Your task to perform on an android device: Show the shopping cart on walmart. Search for dell xps on walmart, select the first entry, add it to the cart, then select checkout. Image 0: 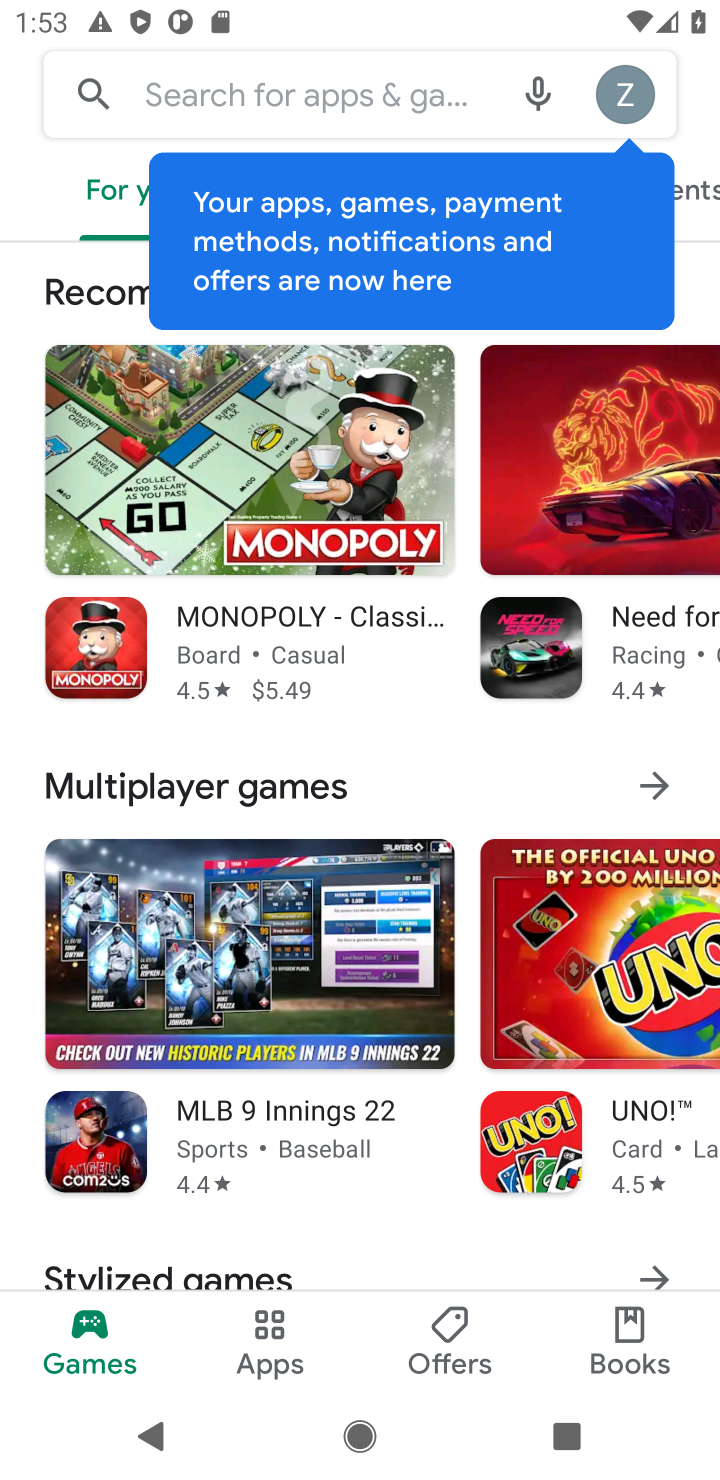
Step 0: press home button
Your task to perform on an android device: Show the shopping cart on walmart. Search for dell xps on walmart, select the first entry, add it to the cart, then select checkout. Image 1: 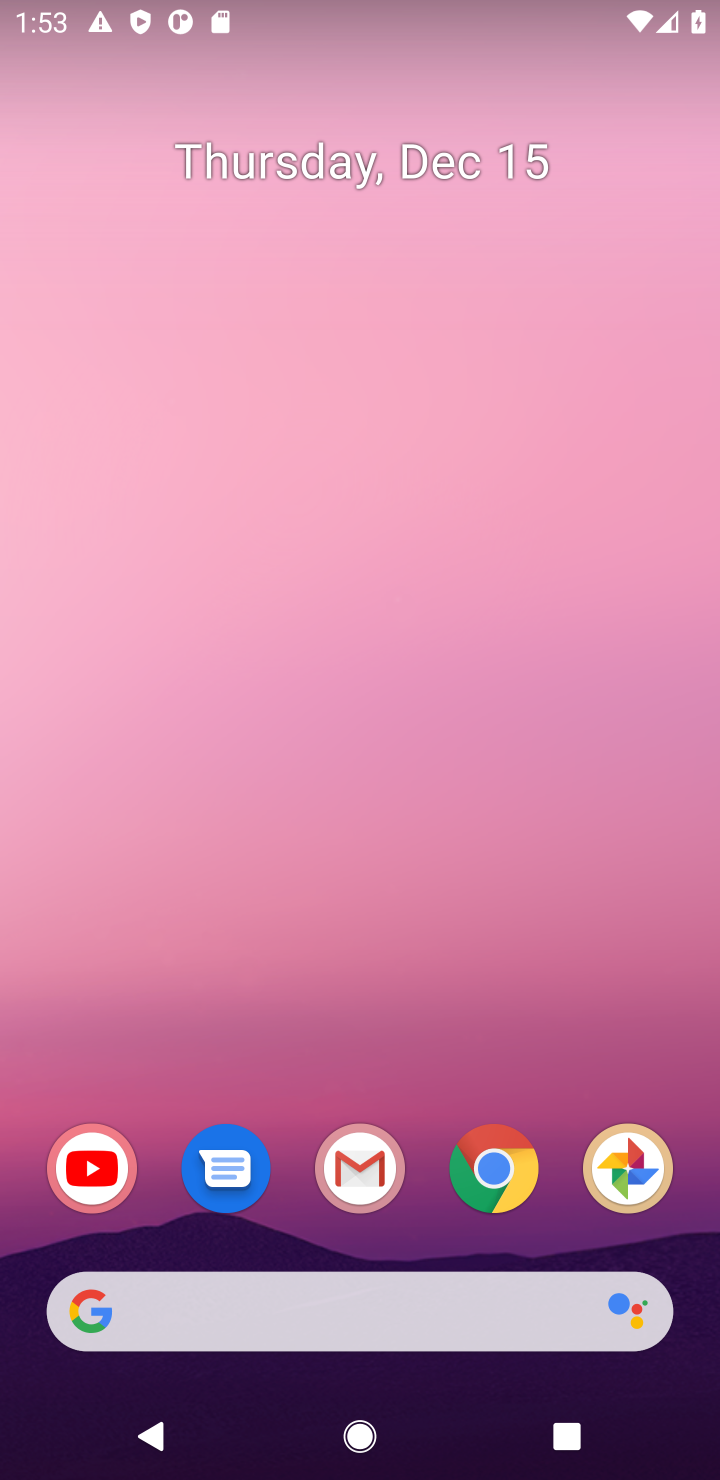
Step 1: click (500, 1147)
Your task to perform on an android device: Show the shopping cart on walmart. Search for dell xps on walmart, select the first entry, add it to the cart, then select checkout. Image 2: 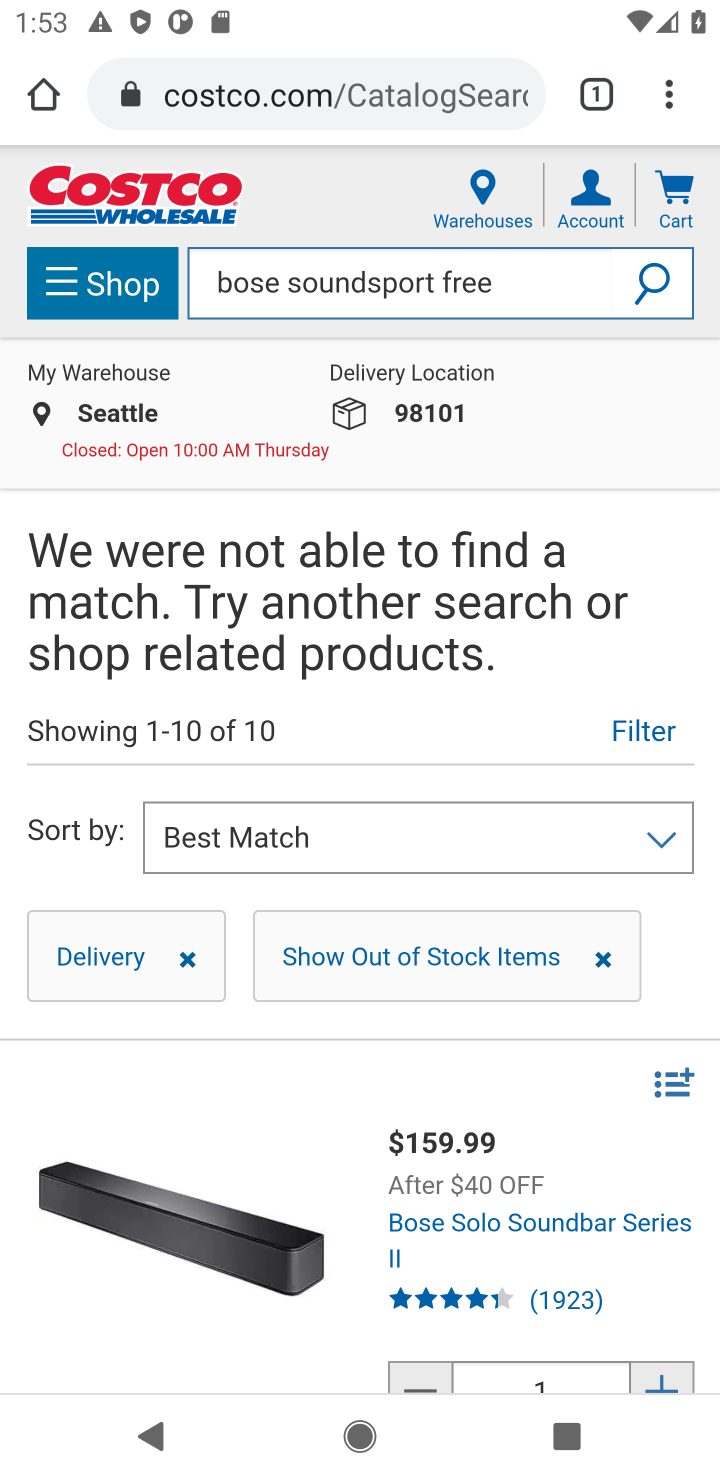
Step 2: click (467, 88)
Your task to perform on an android device: Show the shopping cart on walmart. Search for dell xps on walmart, select the first entry, add it to the cart, then select checkout. Image 3: 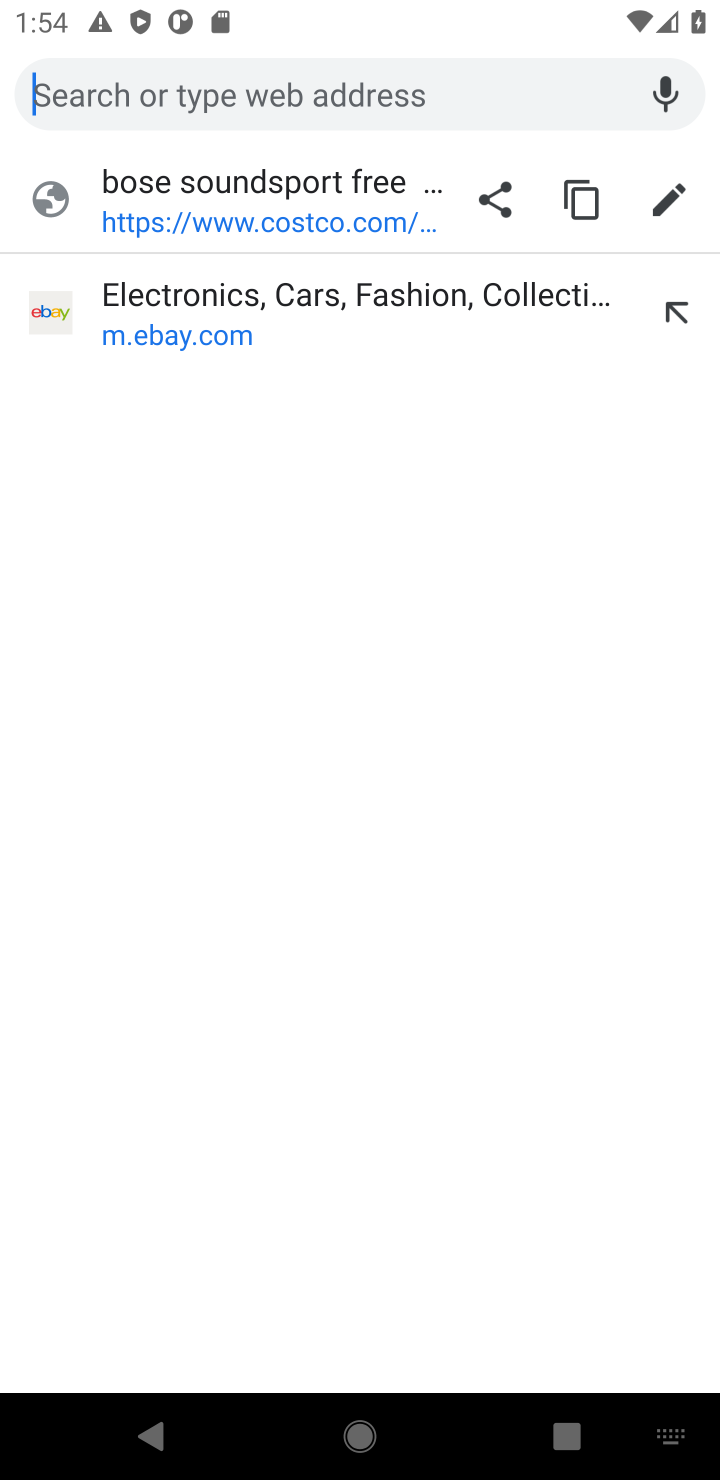
Step 3: type "walmart"
Your task to perform on an android device: Show the shopping cart on walmart. Search for dell xps on walmart, select the first entry, add it to the cart, then select checkout. Image 4: 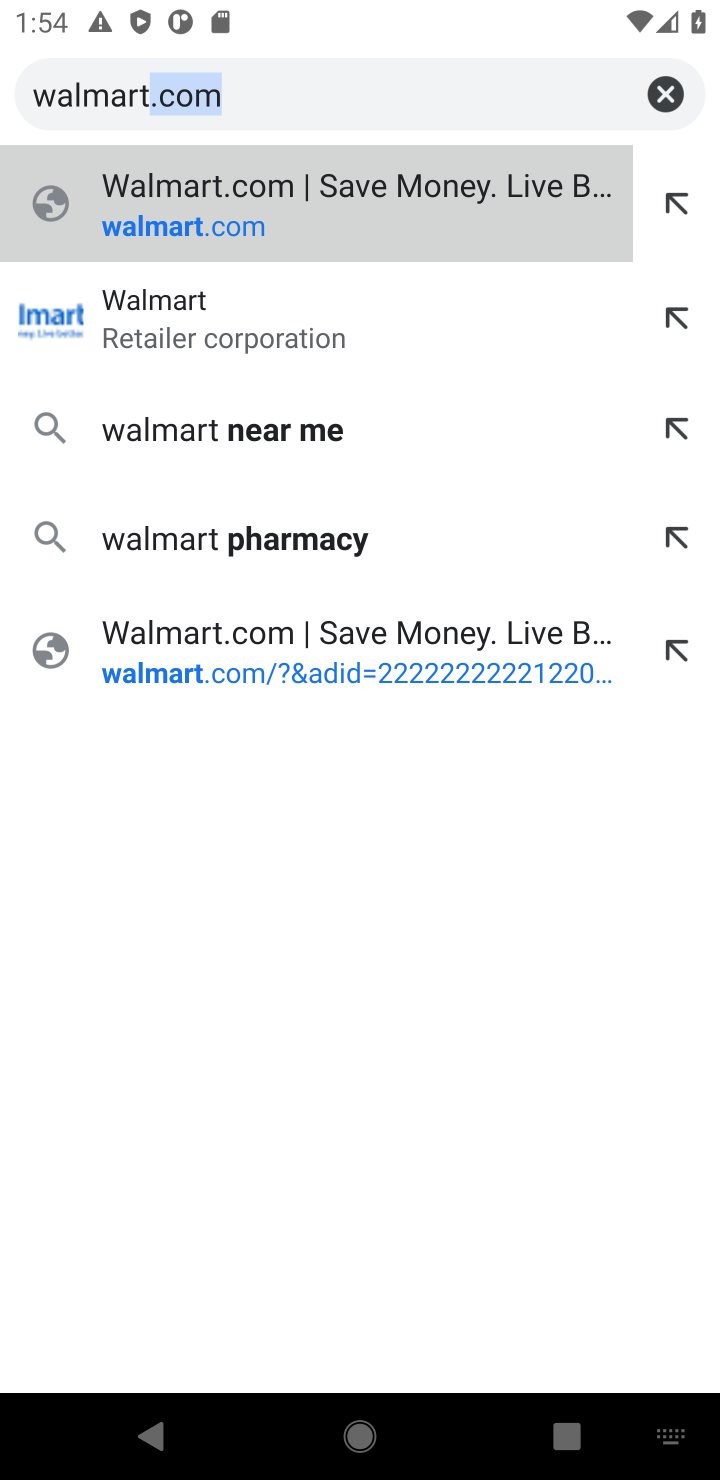
Step 4: press enter
Your task to perform on an android device: Show the shopping cart on walmart. Search for dell xps on walmart, select the first entry, add it to the cart, then select checkout. Image 5: 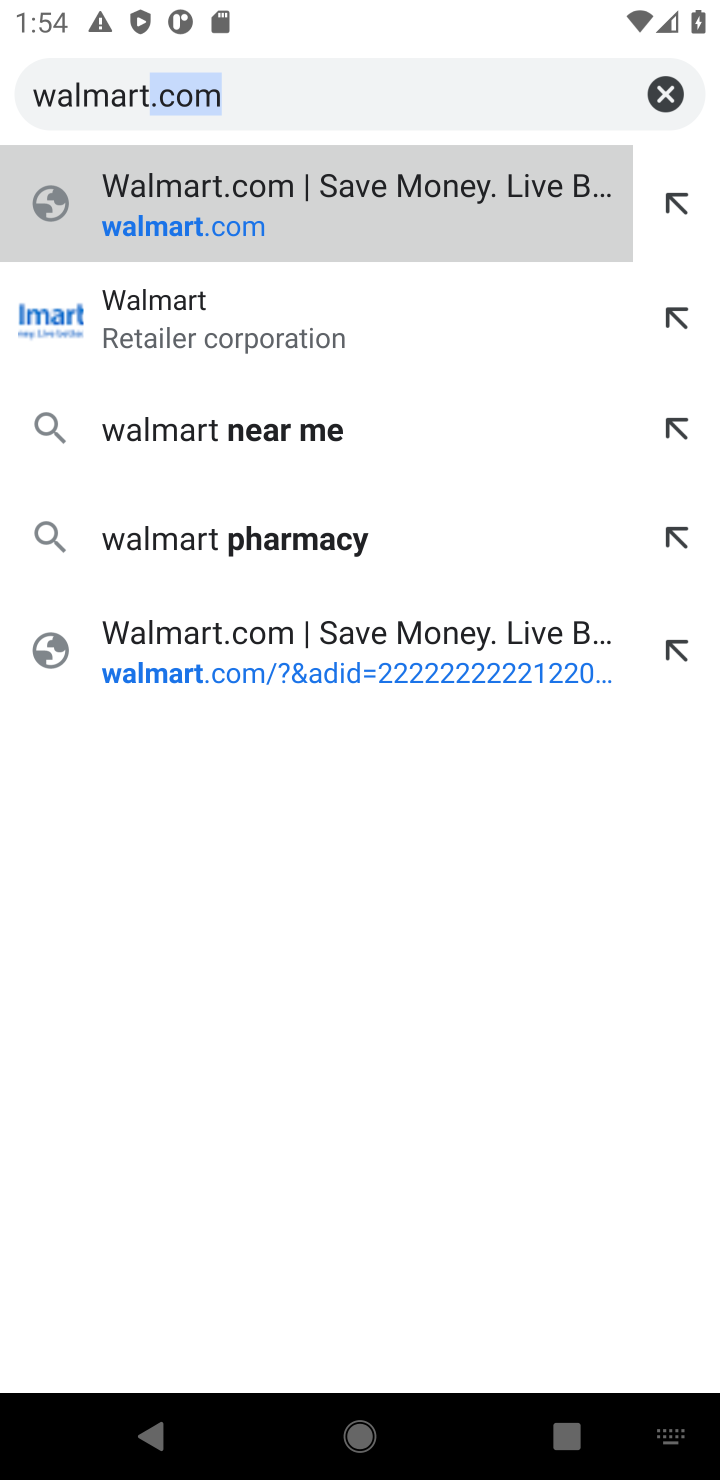
Step 5: type "walmart"
Your task to perform on an android device: Show the shopping cart on walmart. Search for dell xps on walmart, select the first entry, add it to the cart, then select checkout. Image 6: 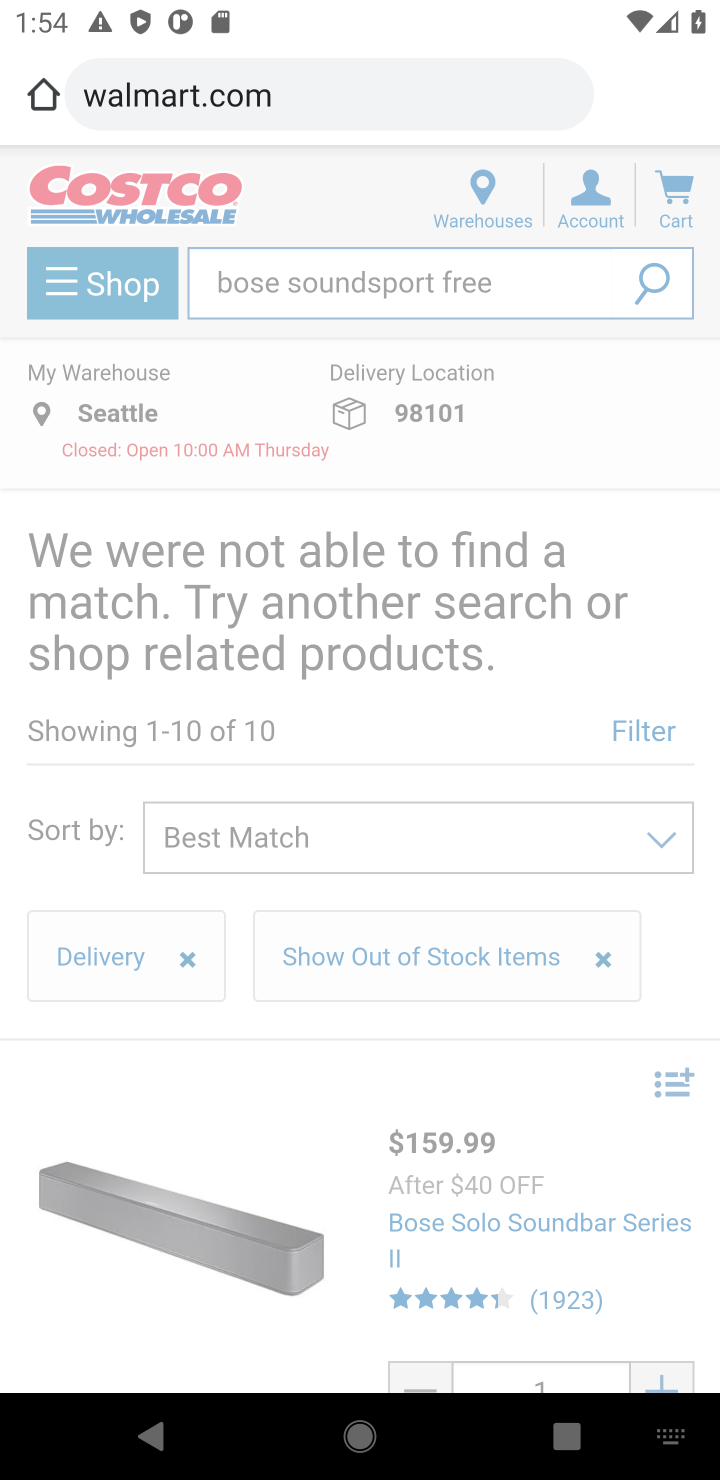
Step 6: click (285, 96)
Your task to perform on an android device: Show the shopping cart on walmart. Search for dell xps on walmart, select the first entry, add it to the cart, then select checkout. Image 7: 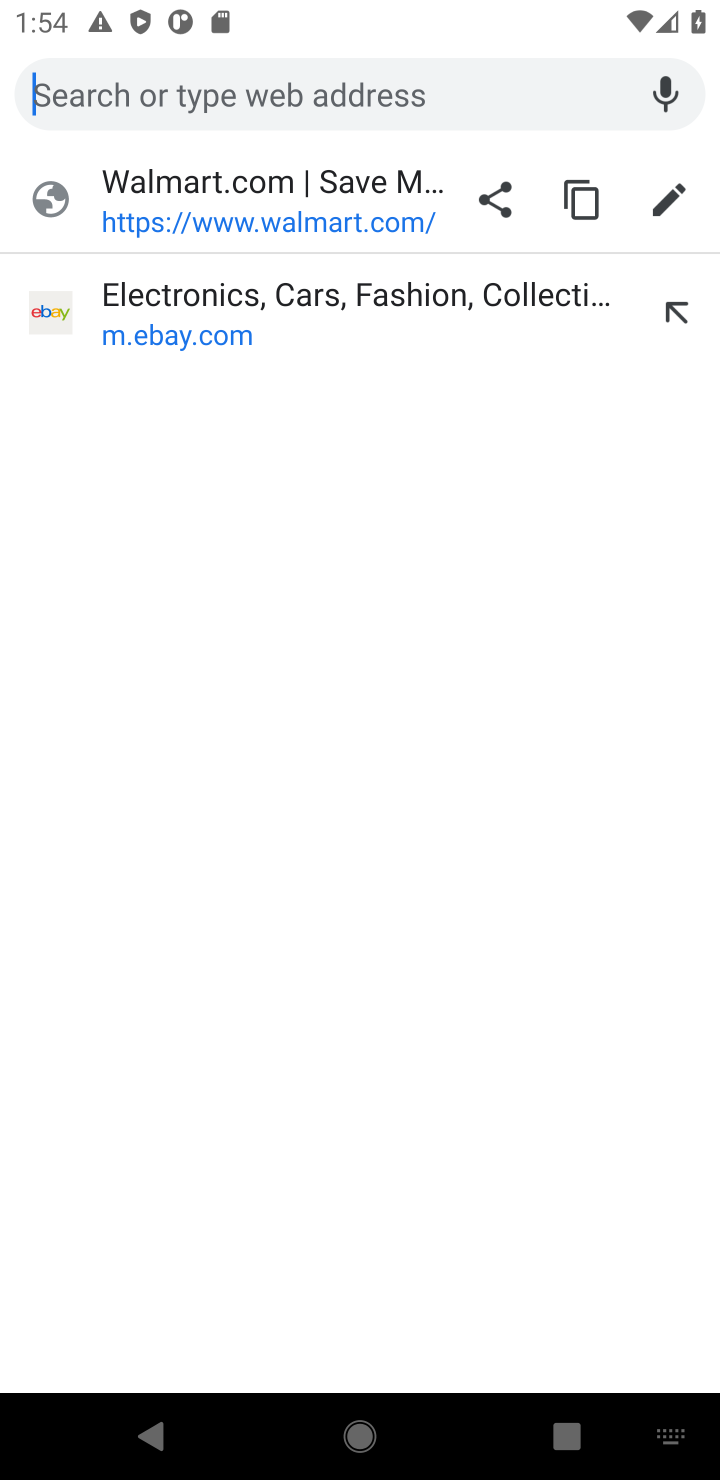
Step 7: press enter
Your task to perform on an android device: Show the shopping cart on walmart. Search for dell xps on walmart, select the first entry, add it to the cart, then select checkout. Image 8: 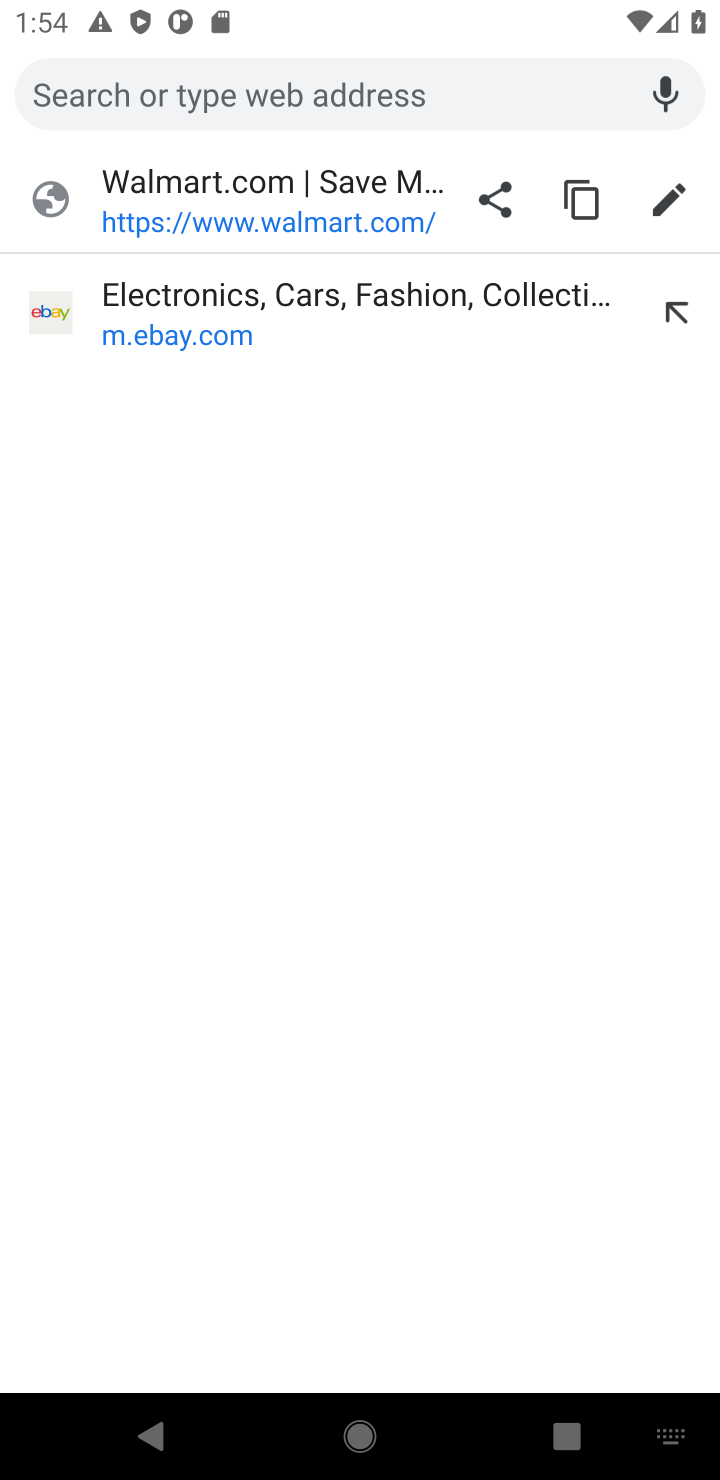
Step 8: type "walmart"
Your task to perform on an android device: Show the shopping cart on walmart. Search for dell xps on walmart, select the first entry, add it to the cart, then select checkout. Image 9: 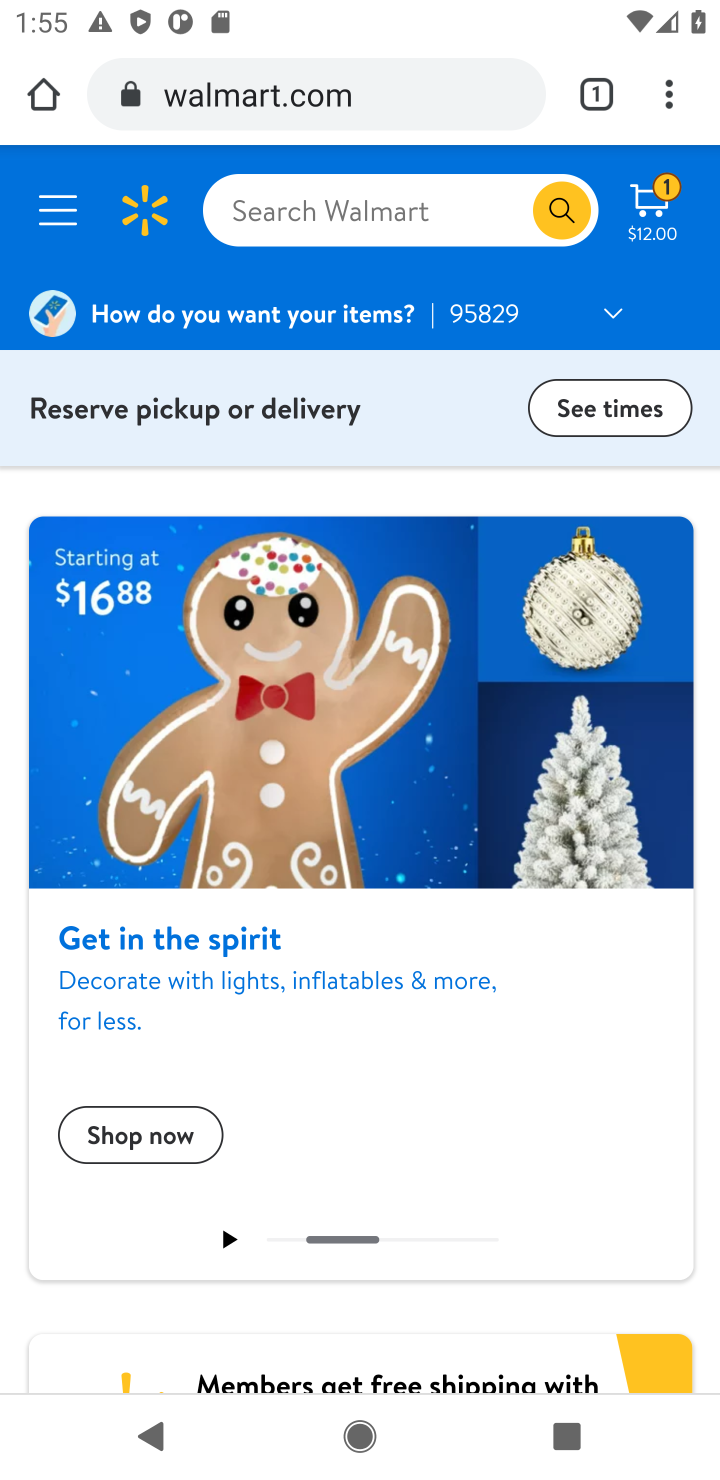
Step 9: click (426, 184)
Your task to perform on an android device: Show the shopping cart on walmart. Search for dell xps on walmart, select the first entry, add it to the cart, then select checkout. Image 10: 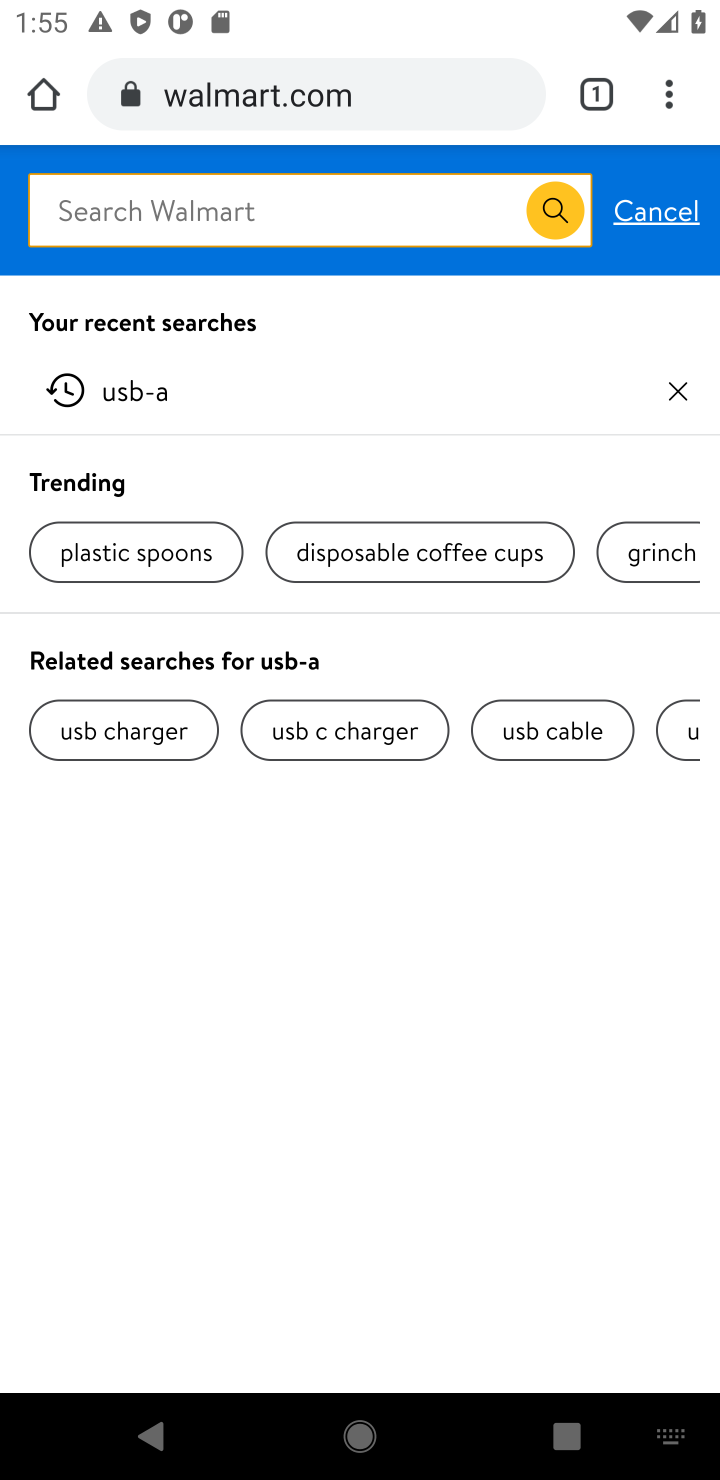
Step 10: press enter
Your task to perform on an android device: Show the shopping cart on walmart. Search for dell xps on walmart, select the first entry, add it to the cart, then select checkout. Image 11: 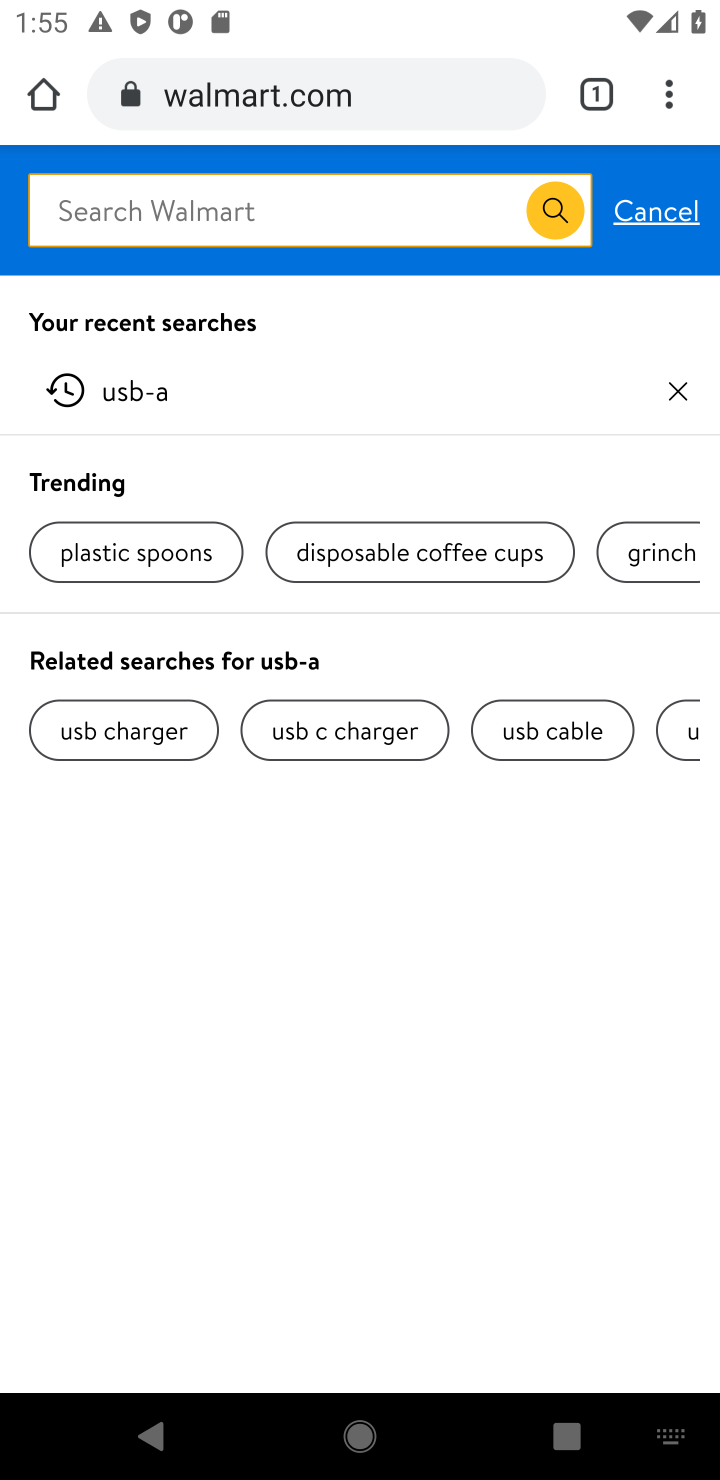
Step 11: type "dell xps"
Your task to perform on an android device: Show the shopping cart on walmart. Search for dell xps on walmart, select the first entry, add it to the cart, then select checkout. Image 12: 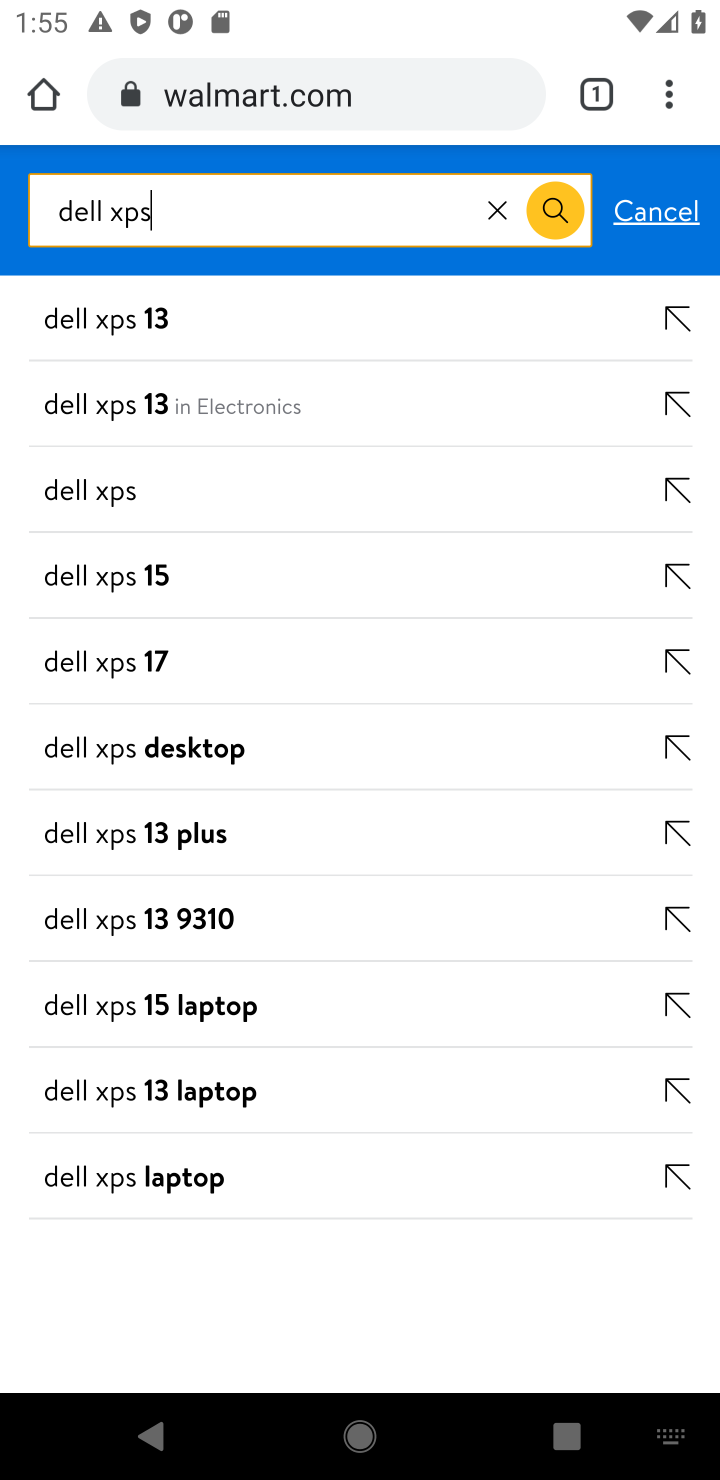
Step 12: click (95, 474)
Your task to perform on an android device: Show the shopping cart on walmart. Search for dell xps on walmart, select the first entry, add it to the cart, then select checkout. Image 13: 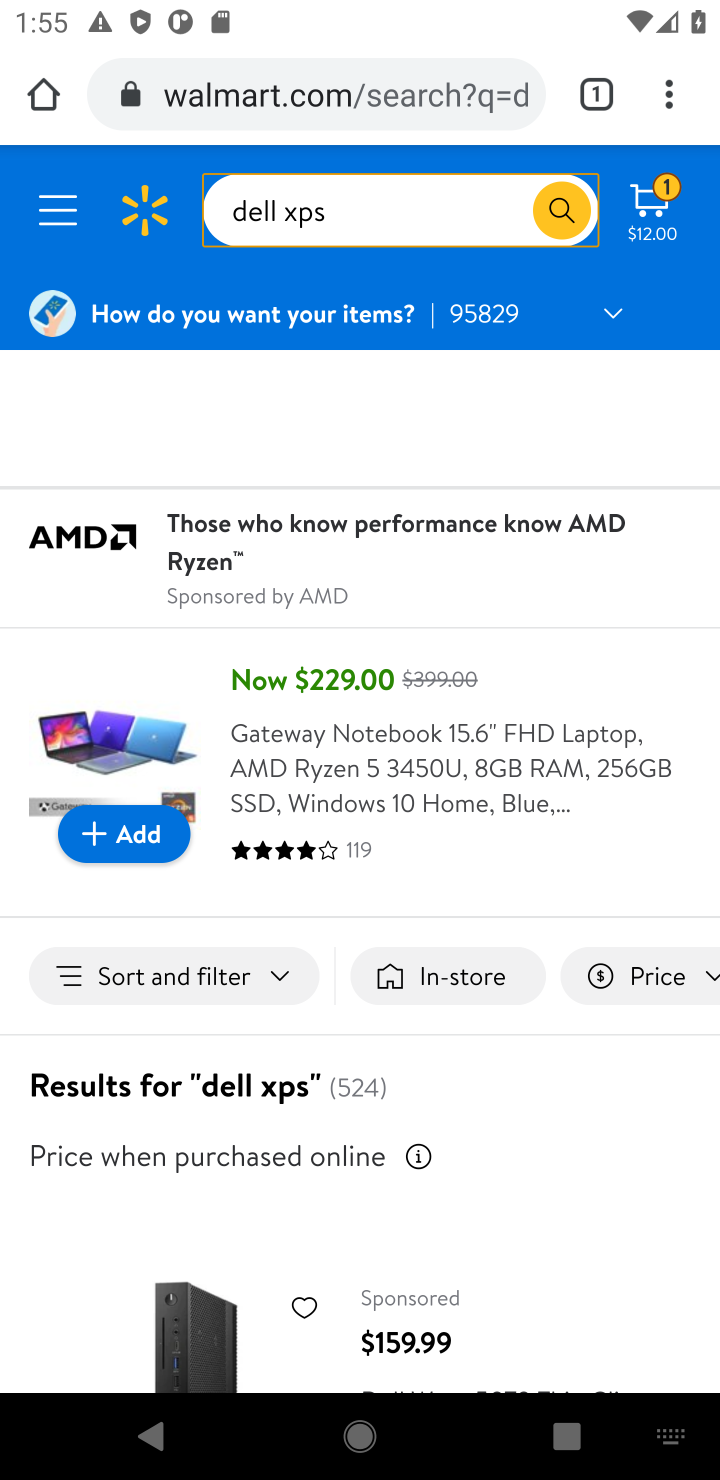
Step 13: drag from (499, 1181) to (395, 560)
Your task to perform on an android device: Show the shopping cart on walmart. Search for dell xps on walmart, select the first entry, add it to the cart, then select checkout. Image 14: 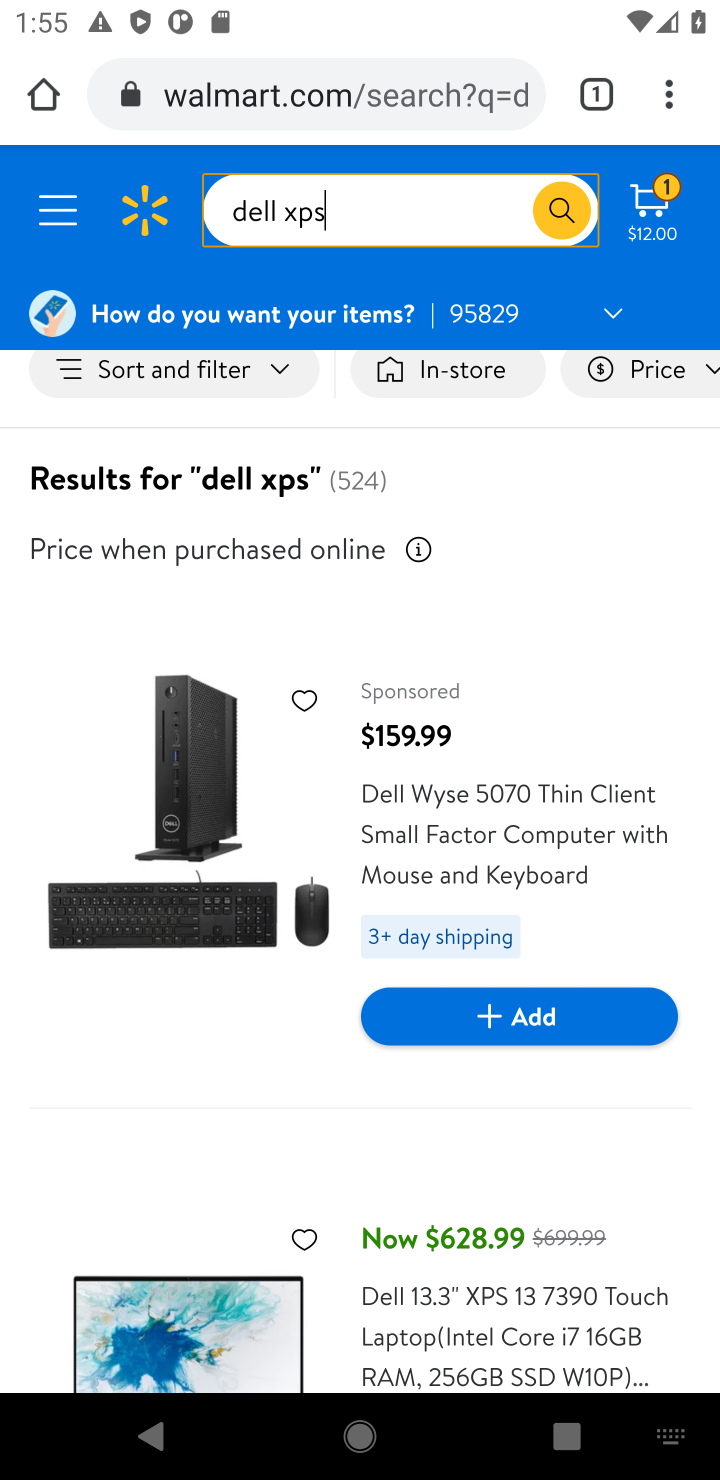
Step 14: drag from (574, 1218) to (475, 747)
Your task to perform on an android device: Show the shopping cart on walmart. Search for dell xps on walmart, select the first entry, add it to the cart, then select checkout. Image 15: 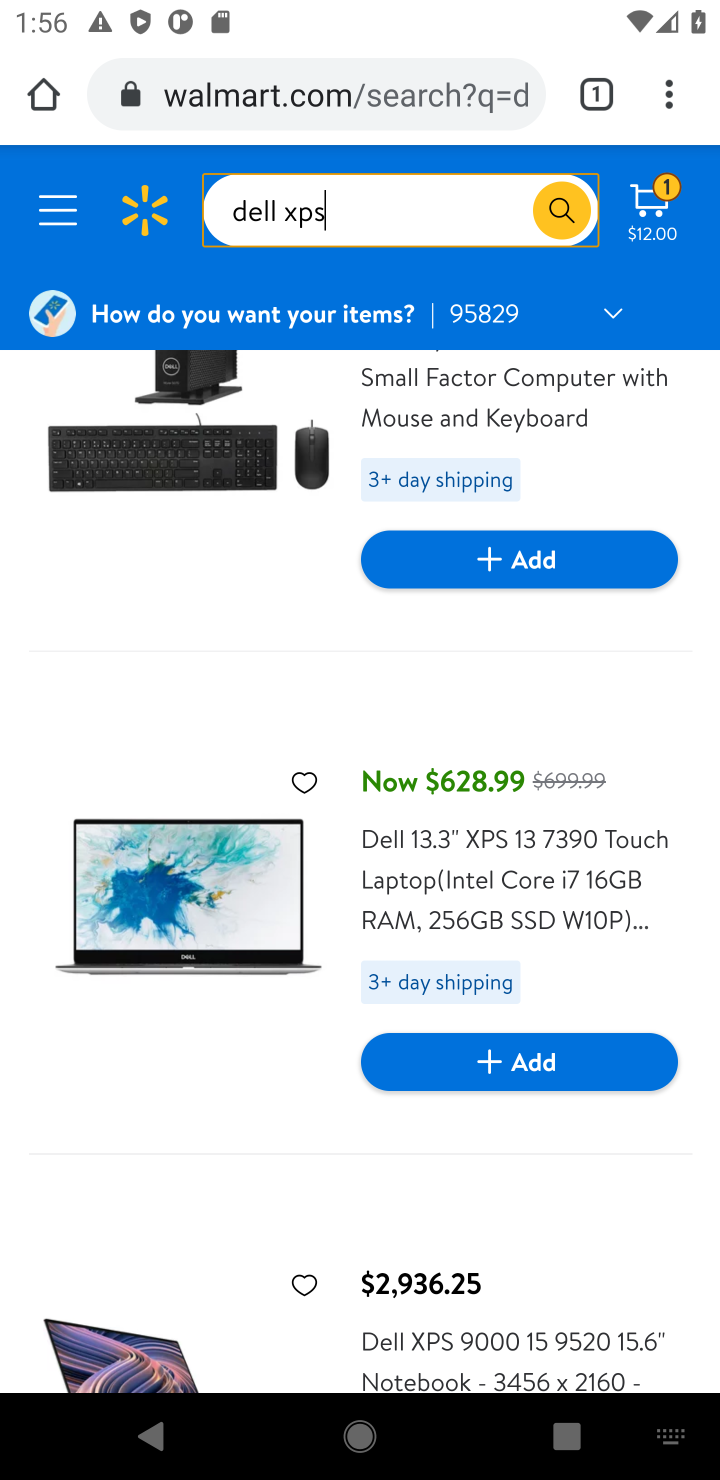
Step 15: drag from (379, 1131) to (209, 525)
Your task to perform on an android device: Show the shopping cart on walmart. Search for dell xps on walmart, select the first entry, add it to the cart, then select checkout. Image 16: 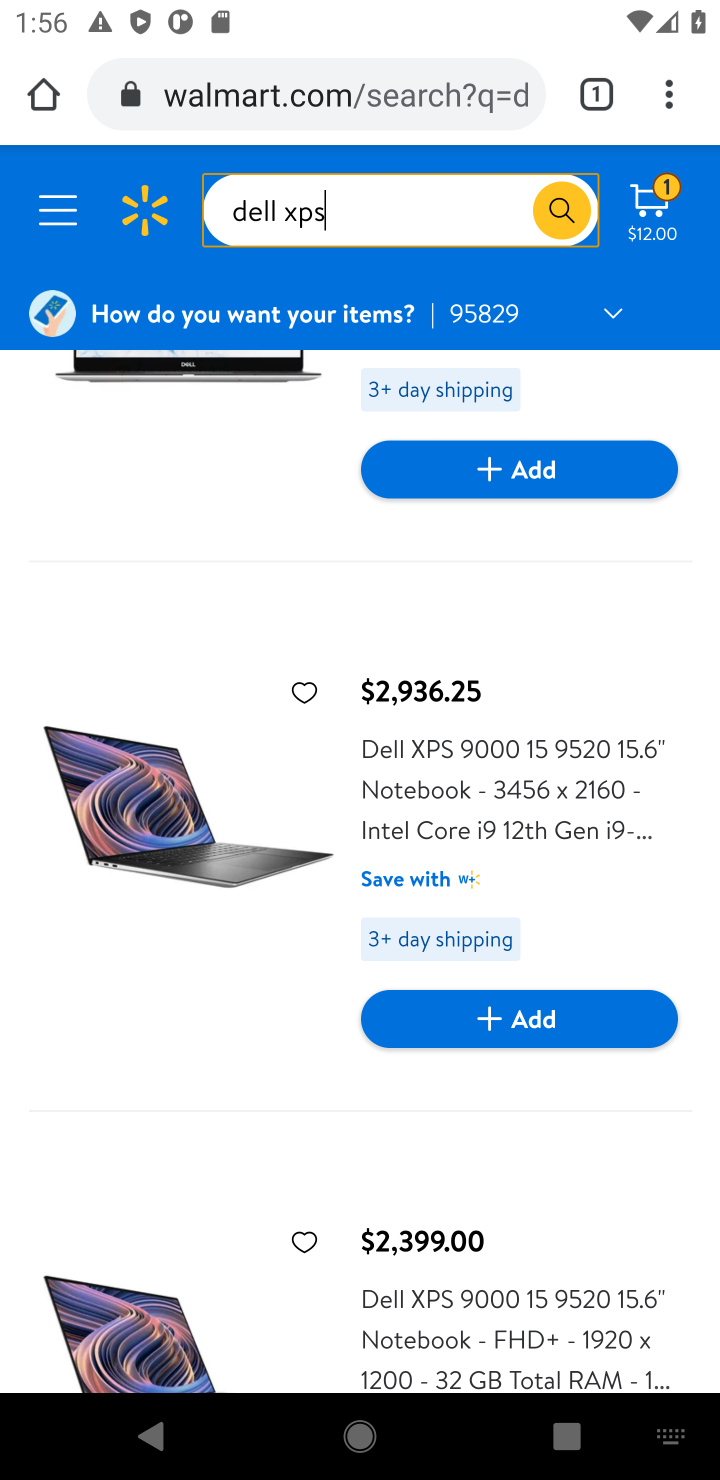
Step 16: click (169, 790)
Your task to perform on an android device: Show the shopping cart on walmart. Search for dell xps on walmart, select the first entry, add it to the cart, then select checkout. Image 17: 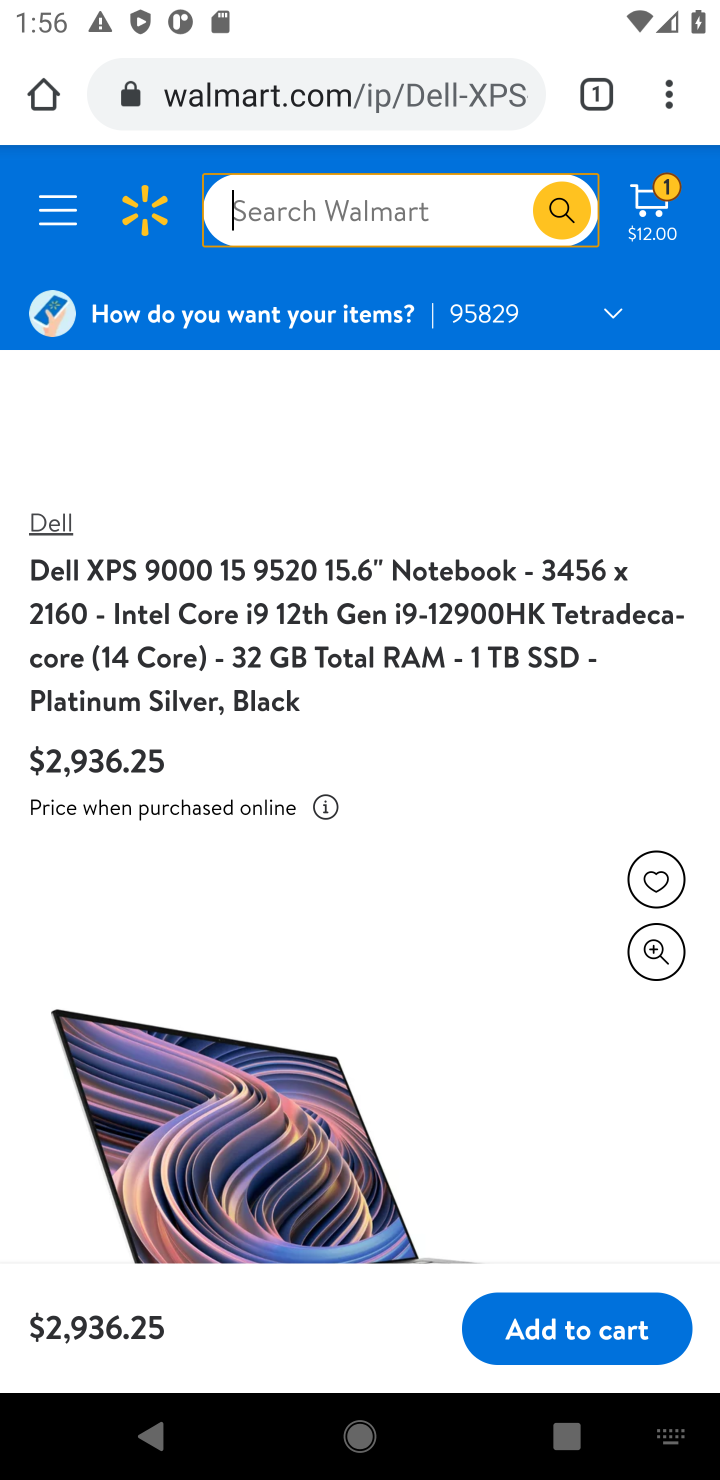
Step 17: click (623, 1339)
Your task to perform on an android device: Show the shopping cart on walmart. Search for dell xps on walmart, select the first entry, add it to the cart, then select checkout. Image 18: 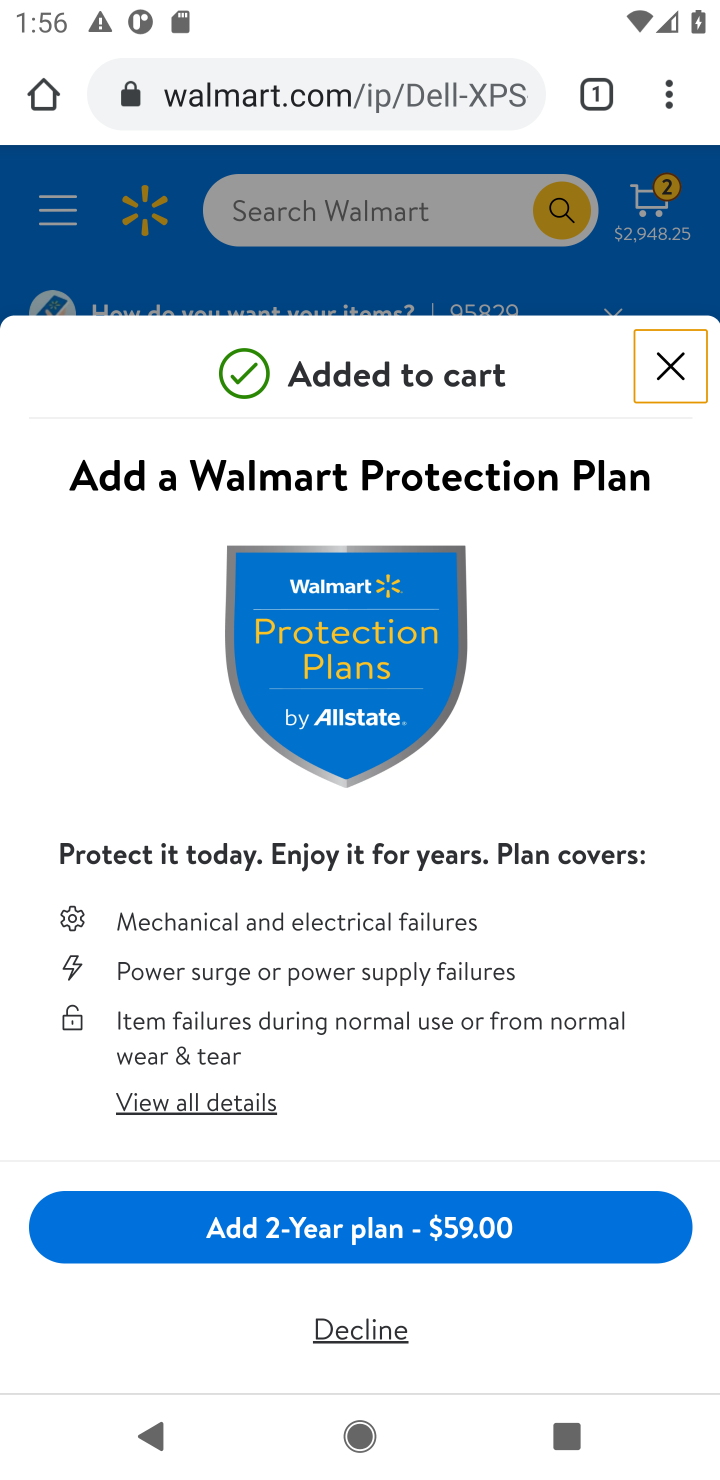
Step 18: click (670, 351)
Your task to perform on an android device: Show the shopping cart on walmart. Search for dell xps on walmart, select the first entry, add it to the cart, then select checkout. Image 19: 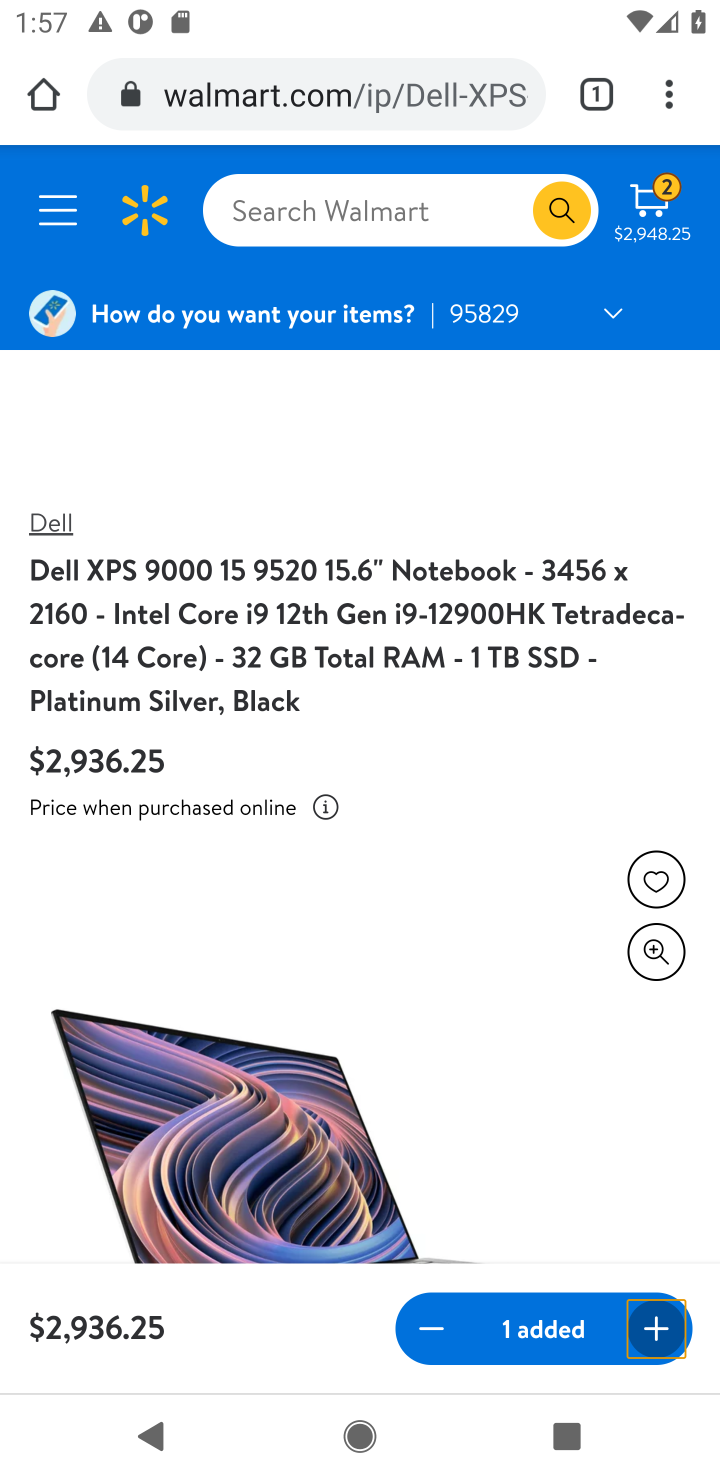
Step 19: click (652, 228)
Your task to perform on an android device: Show the shopping cart on walmart. Search for dell xps on walmart, select the first entry, add it to the cart, then select checkout. Image 20: 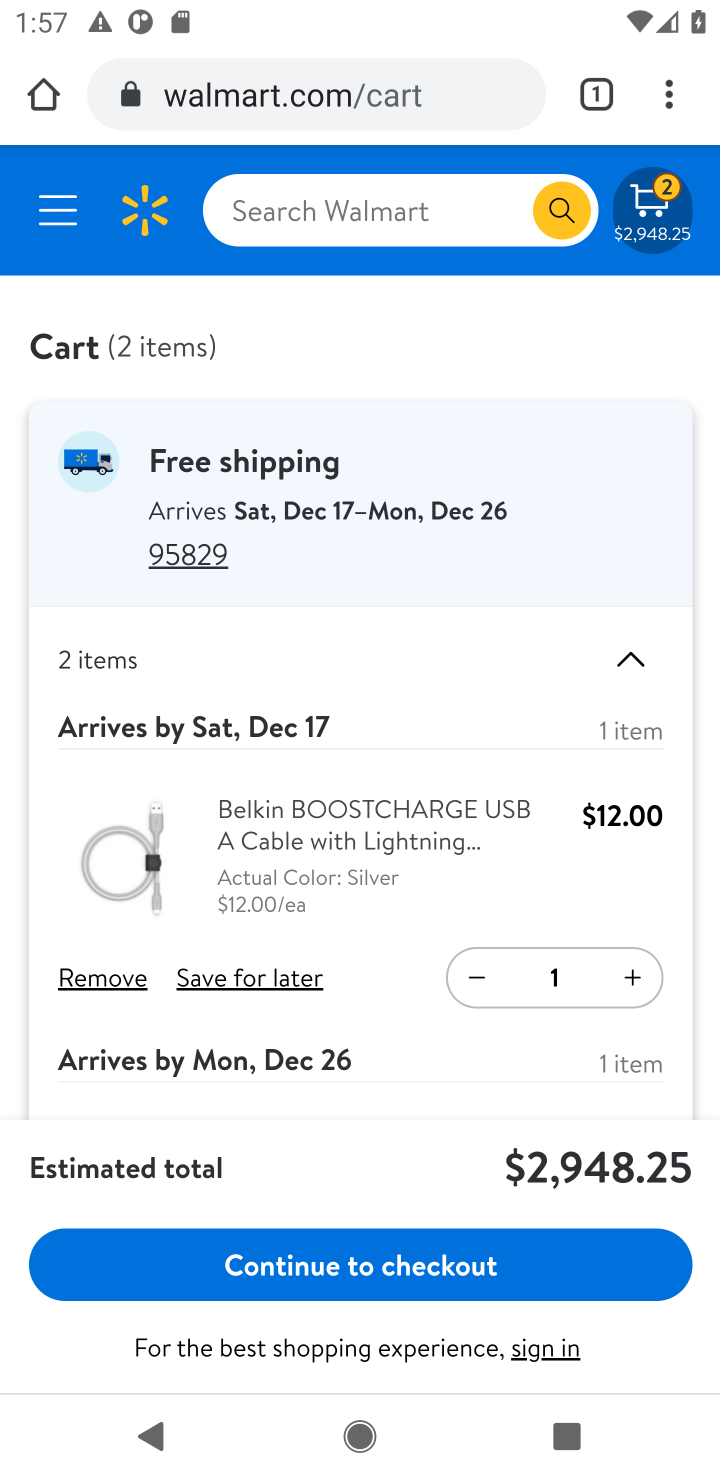
Step 20: click (499, 1274)
Your task to perform on an android device: Show the shopping cart on walmart. Search for dell xps on walmart, select the first entry, add it to the cart, then select checkout. Image 21: 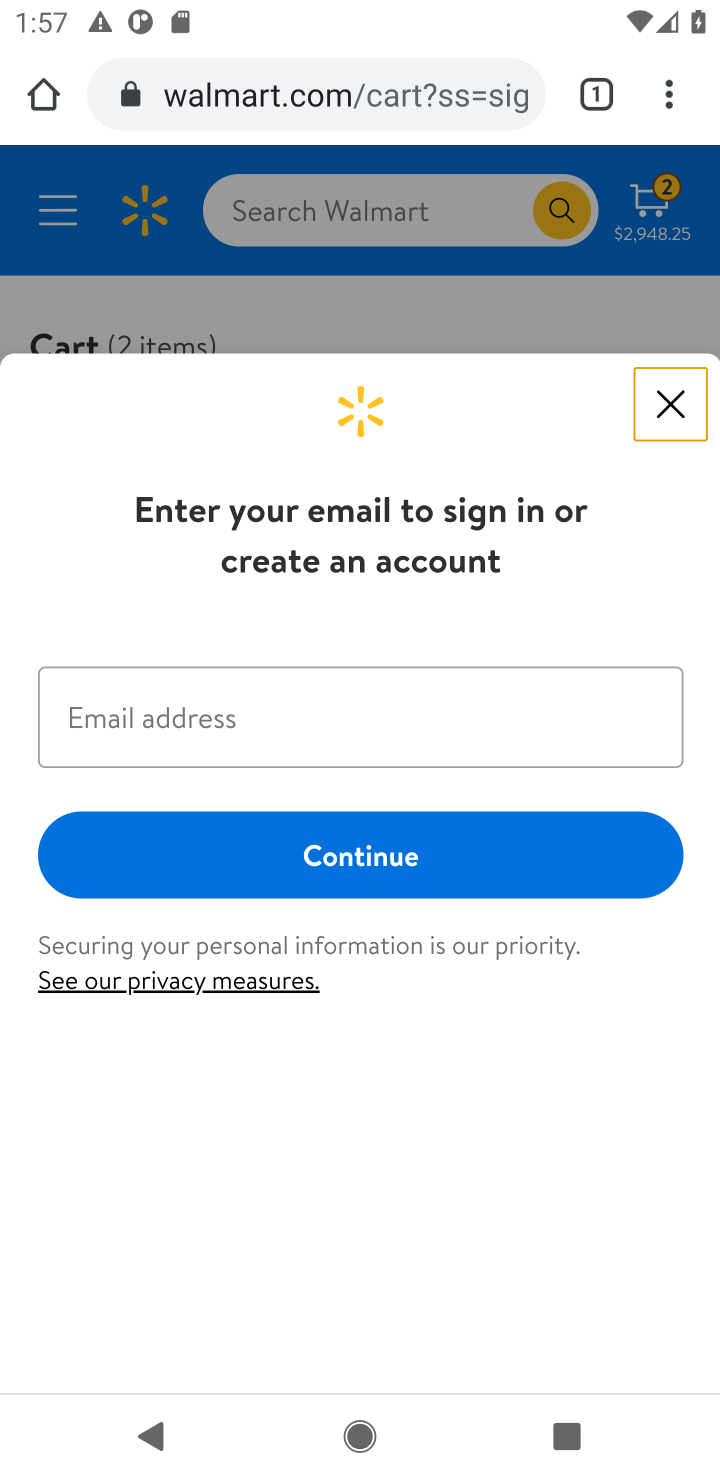
Step 21: task complete